Your task to perform on an android device: Search for Mexican restaurants on Maps Image 0: 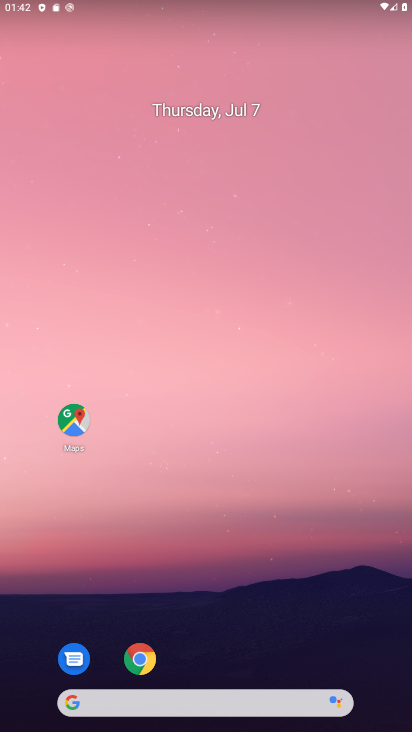
Step 0: drag from (229, 634) to (237, 130)
Your task to perform on an android device: Search for Mexican restaurants on Maps Image 1: 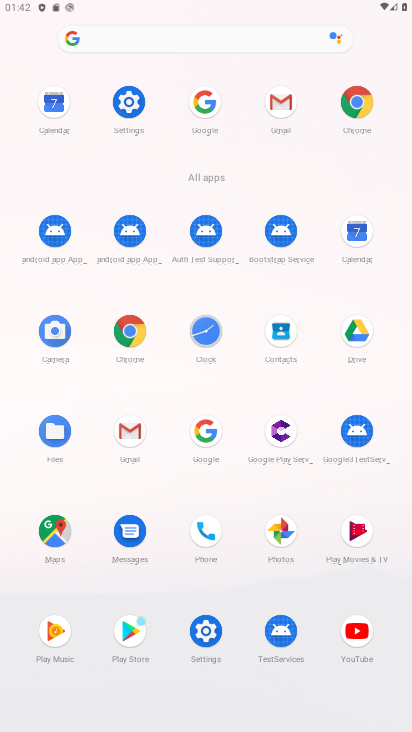
Step 1: click (53, 530)
Your task to perform on an android device: Search for Mexican restaurants on Maps Image 2: 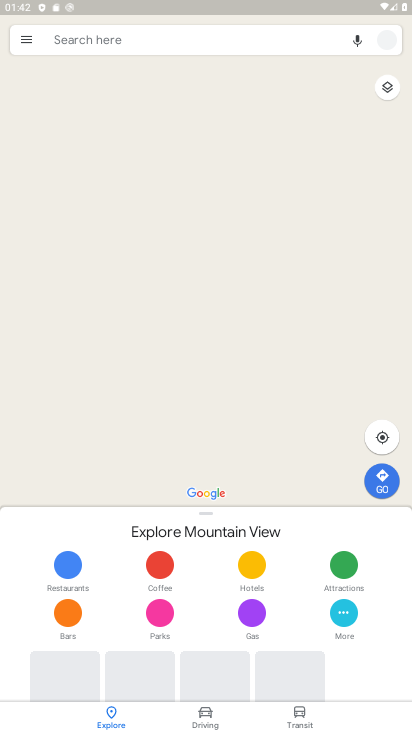
Step 2: click (174, 39)
Your task to perform on an android device: Search for Mexican restaurants on Maps Image 3: 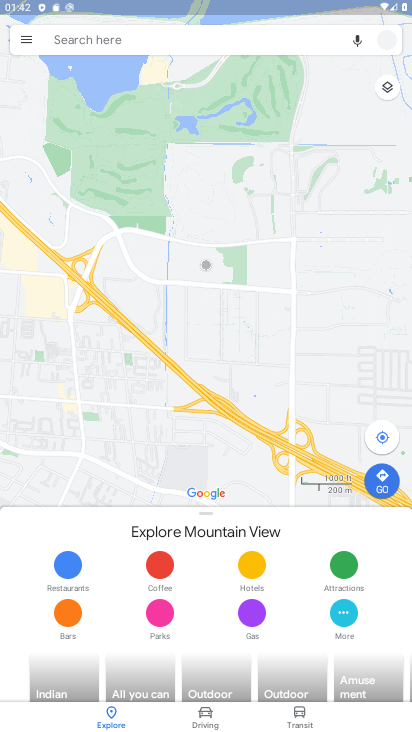
Step 3: type "Mexican restaurants"
Your task to perform on an android device: Search for Mexican restaurants on Maps Image 4: 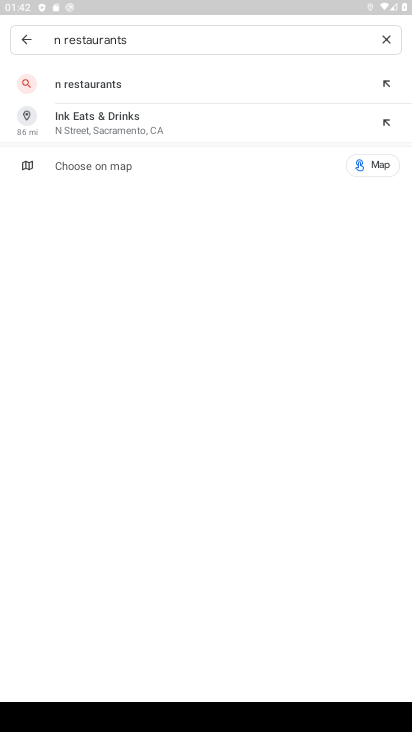
Step 4: click (387, 38)
Your task to perform on an android device: Search for Mexican restaurants on Maps Image 5: 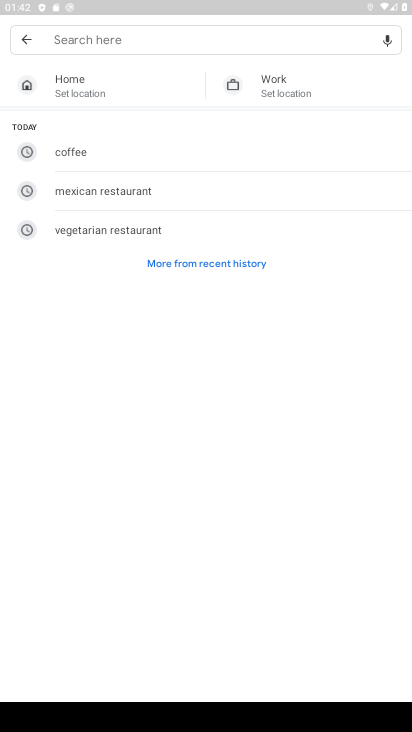
Step 5: click (137, 191)
Your task to perform on an android device: Search for Mexican restaurants on Maps Image 6: 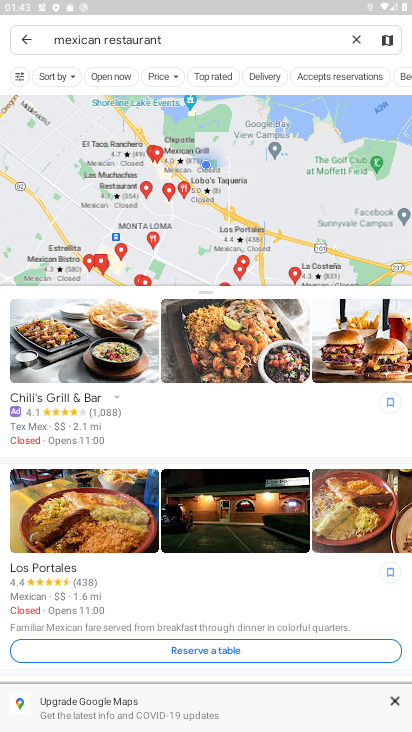
Step 6: task complete